Your task to perform on an android device: set default search engine in the chrome app Image 0: 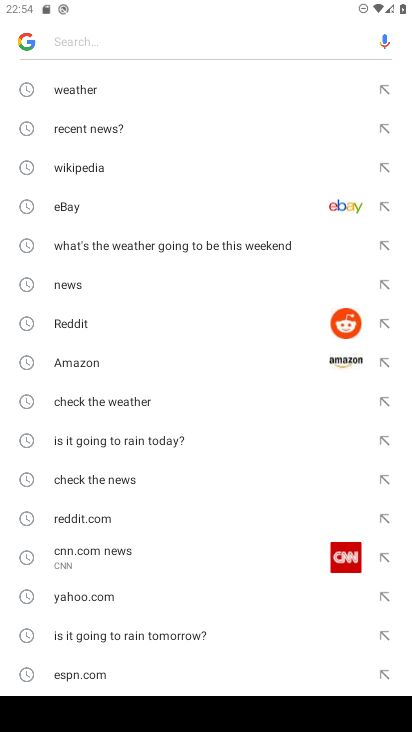
Step 0: press home button
Your task to perform on an android device: set default search engine in the chrome app Image 1: 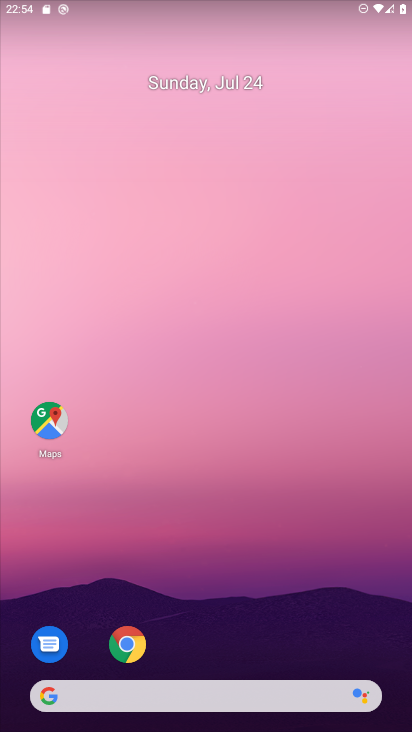
Step 1: click (127, 647)
Your task to perform on an android device: set default search engine in the chrome app Image 2: 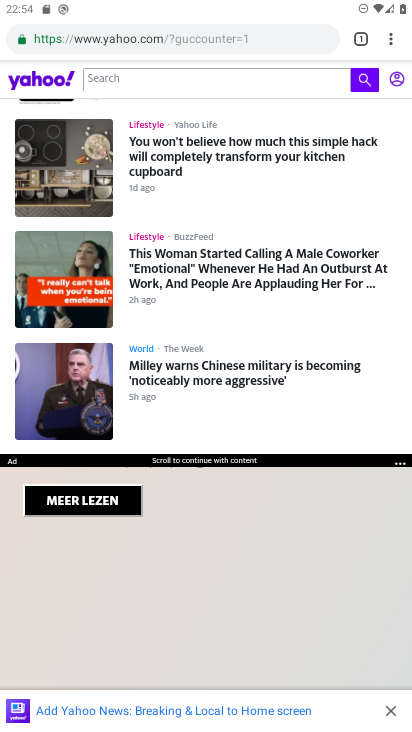
Step 2: click (390, 42)
Your task to perform on an android device: set default search engine in the chrome app Image 3: 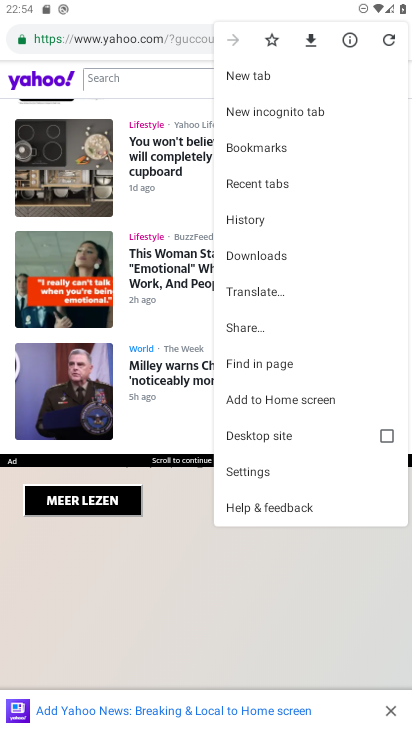
Step 3: click (251, 472)
Your task to perform on an android device: set default search engine in the chrome app Image 4: 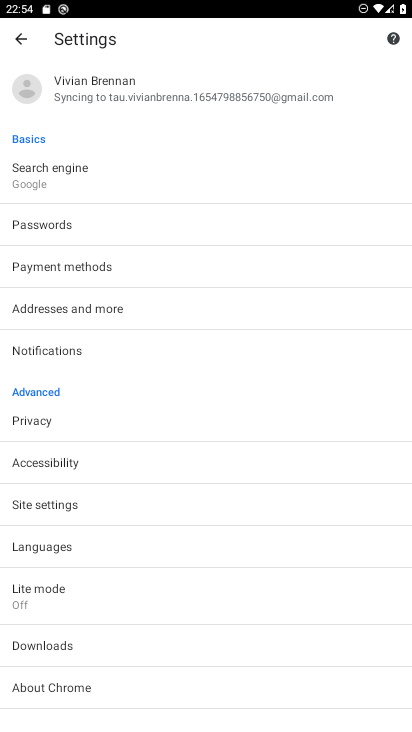
Step 4: click (24, 167)
Your task to perform on an android device: set default search engine in the chrome app Image 5: 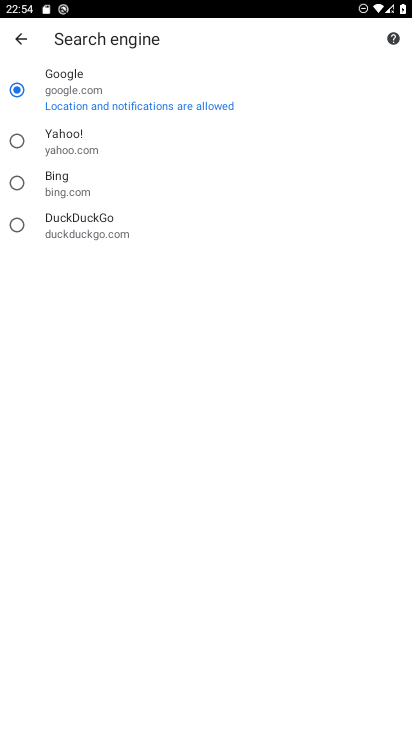
Step 5: click (13, 136)
Your task to perform on an android device: set default search engine in the chrome app Image 6: 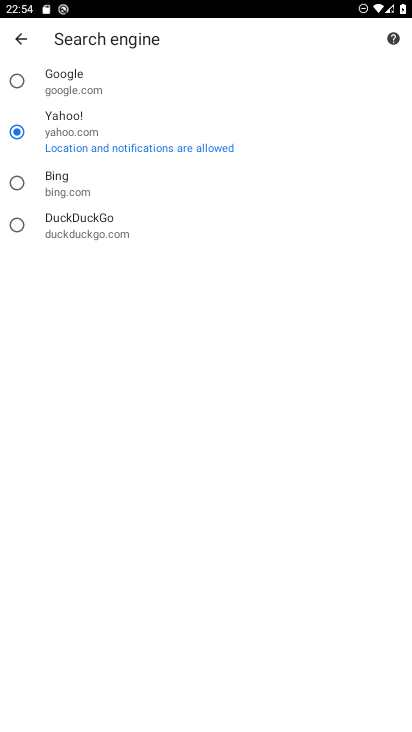
Step 6: task complete